Your task to perform on an android device: check battery use Image 0: 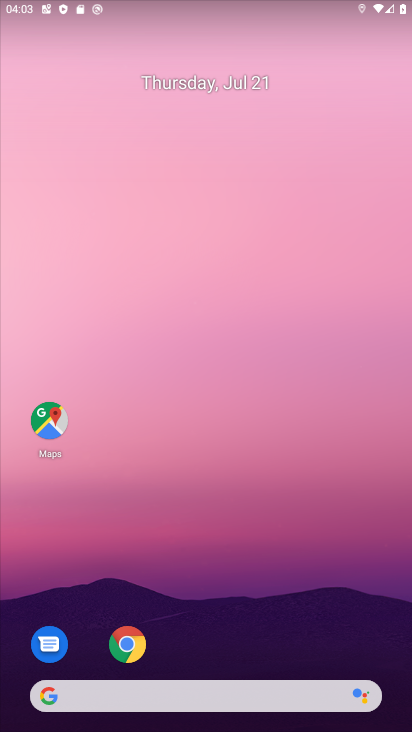
Step 0: drag from (232, 651) to (163, 6)
Your task to perform on an android device: check battery use Image 1: 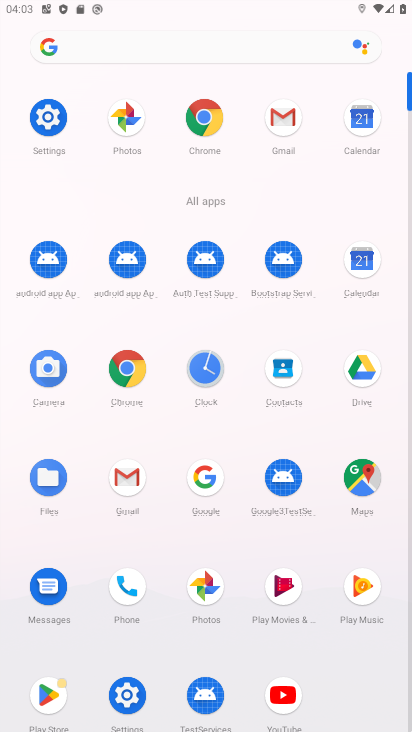
Step 1: click (50, 113)
Your task to perform on an android device: check battery use Image 2: 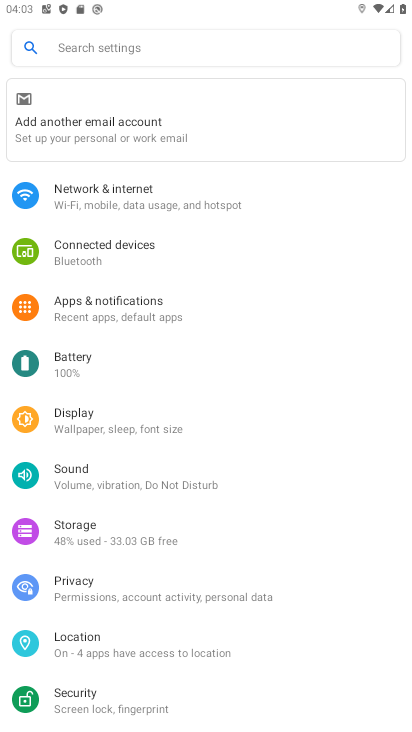
Step 2: click (80, 371)
Your task to perform on an android device: check battery use Image 3: 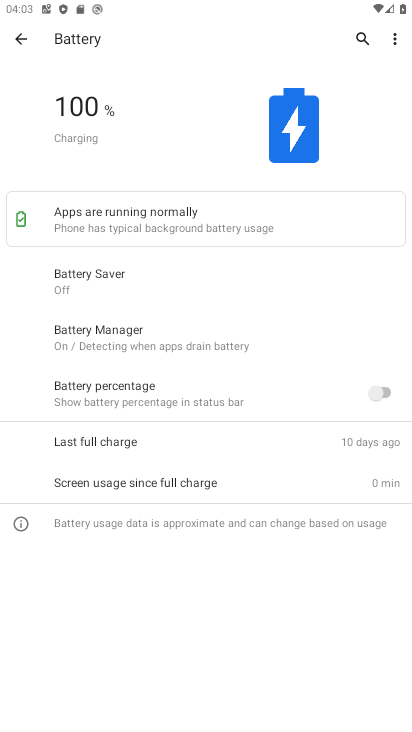
Step 3: click (398, 42)
Your task to perform on an android device: check battery use Image 4: 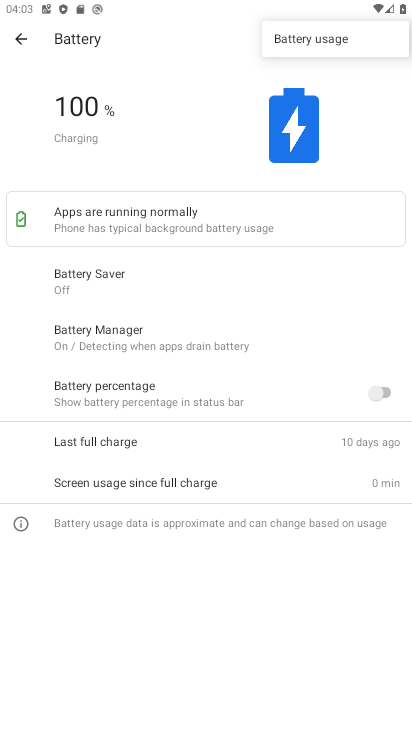
Step 4: click (331, 47)
Your task to perform on an android device: check battery use Image 5: 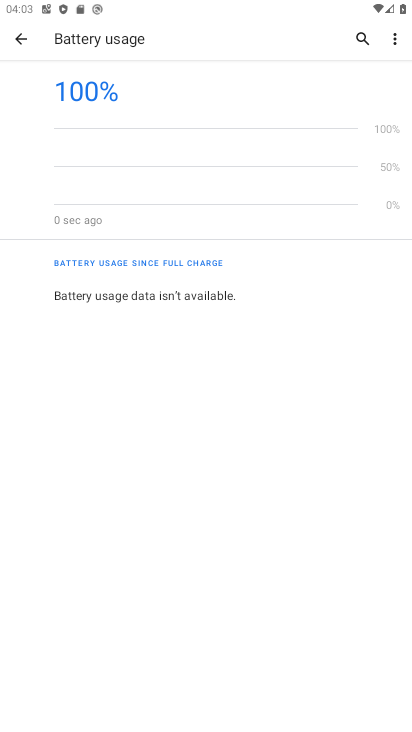
Step 5: task complete